Your task to perform on an android device: Open wifi settings Image 0: 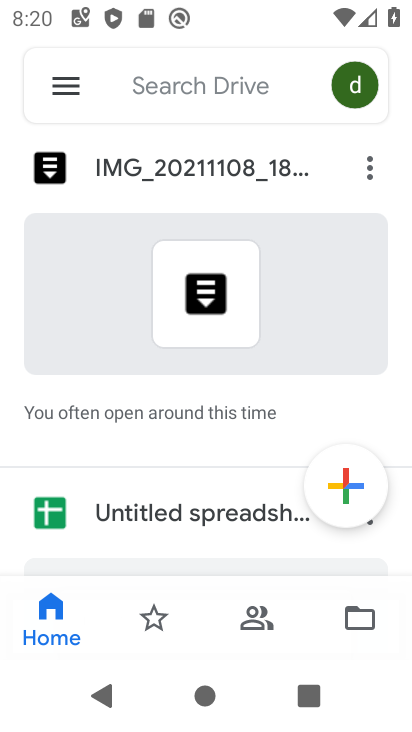
Step 0: drag from (216, 462) to (343, 132)
Your task to perform on an android device: Open wifi settings Image 1: 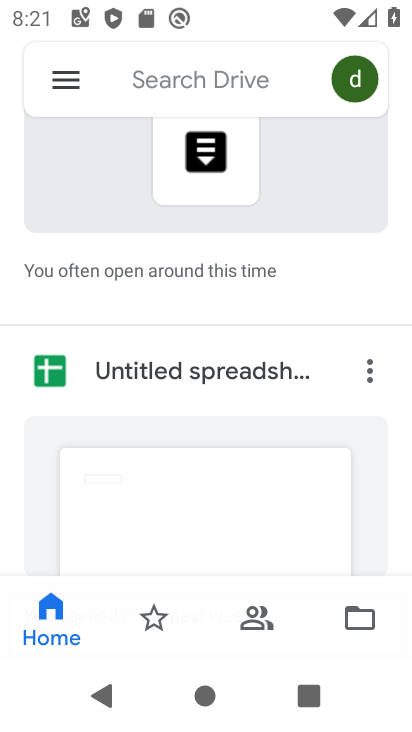
Step 1: drag from (201, 481) to (238, 33)
Your task to perform on an android device: Open wifi settings Image 2: 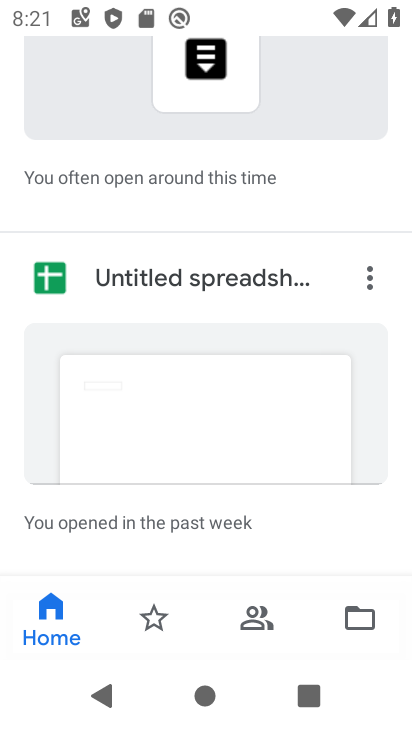
Step 2: press home button
Your task to perform on an android device: Open wifi settings Image 3: 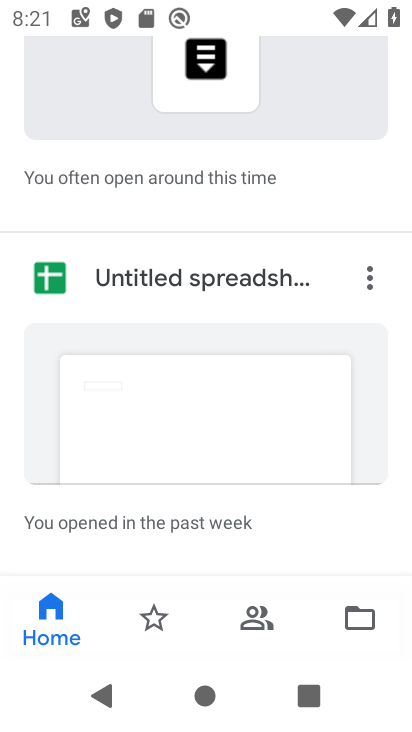
Step 3: press home button
Your task to perform on an android device: Open wifi settings Image 4: 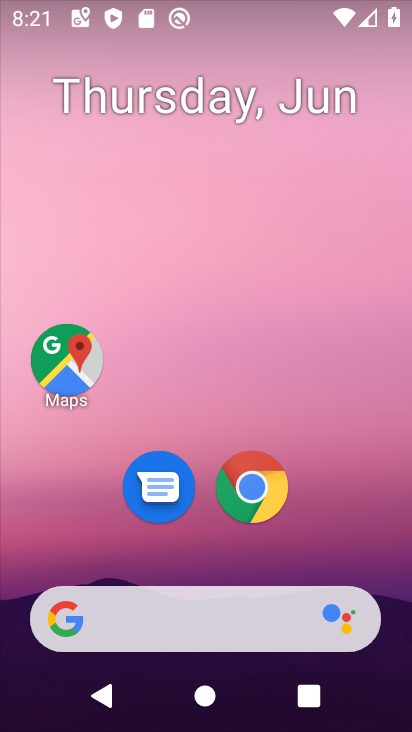
Step 4: drag from (208, 535) to (217, 260)
Your task to perform on an android device: Open wifi settings Image 5: 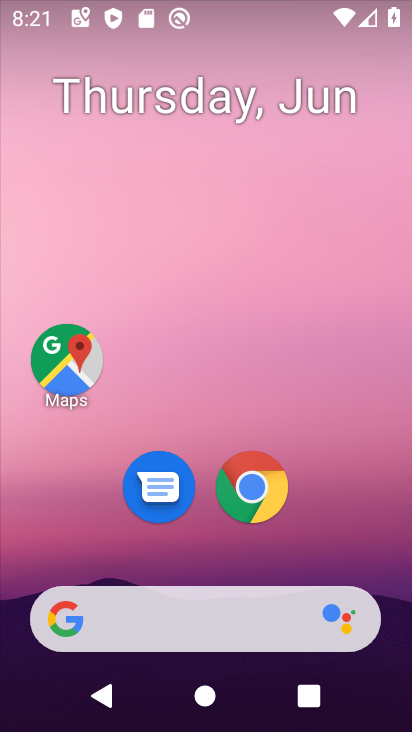
Step 5: drag from (185, 562) to (204, 69)
Your task to perform on an android device: Open wifi settings Image 6: 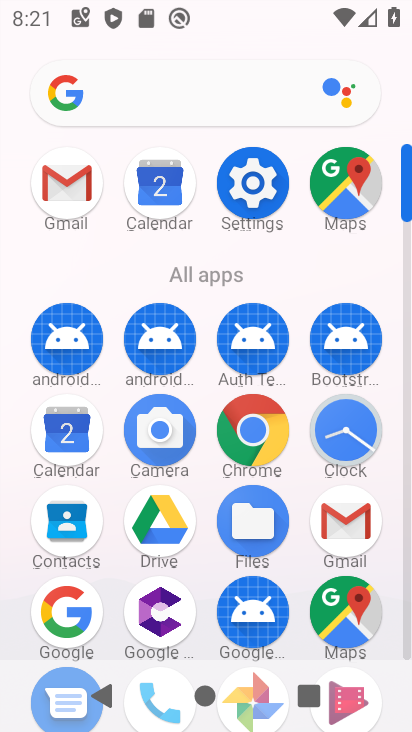
Step 6: click (251, 172)
Your task to perform on an android device: Open wifi settings Image 7: 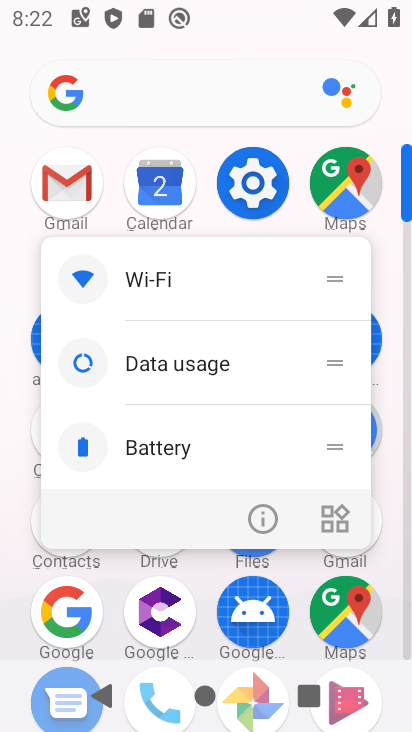
Step 7: click (280, 515)
Your task to perform on an android device: Open wifi settings Image 8: 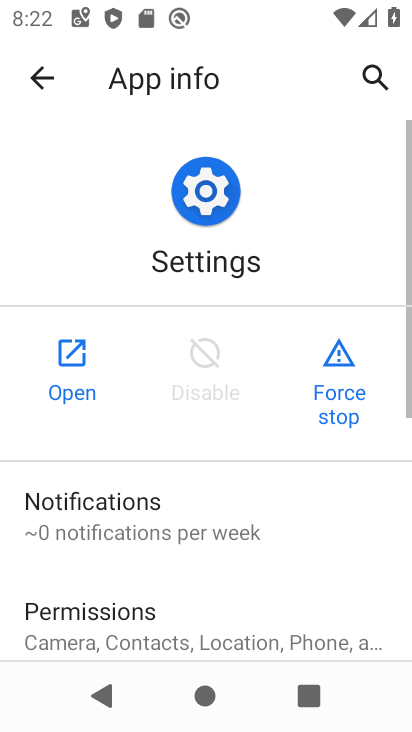
Step 8: click (56, 389)
Your task to perform on an android device: Open wifi settings Image 9: 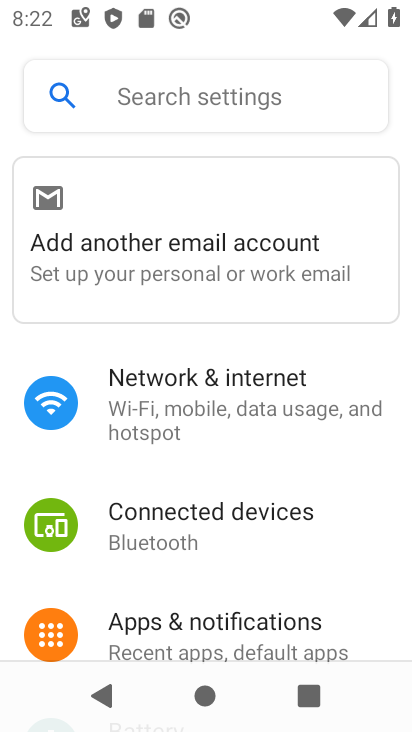
Step 9: click (171, 384)
Your task to perform on an android device: Open wifi settings Image 10: 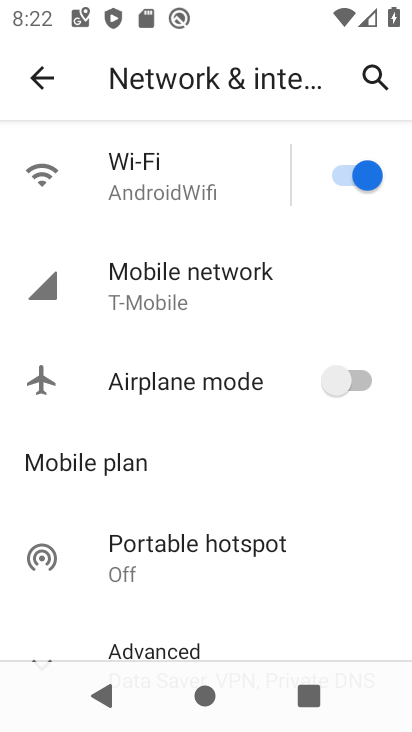
Step 10: click (160, 188)
Your task to perform on an android device: Open wifi settings Image 11: 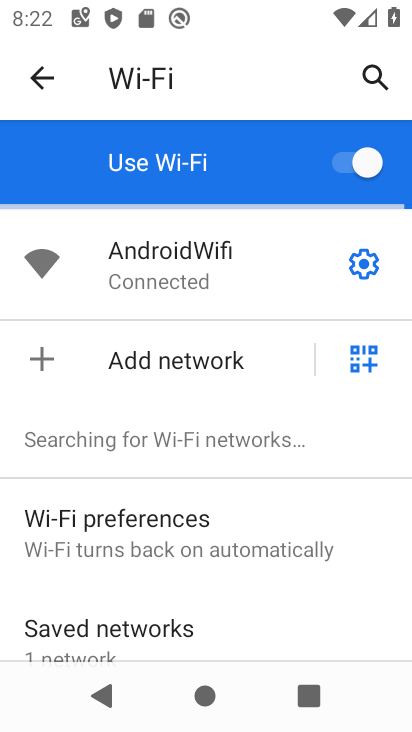
Step 11: drag from (256, 582) to (267, 210)
Your task to perform on an android device: Open wifi settings Image 12: 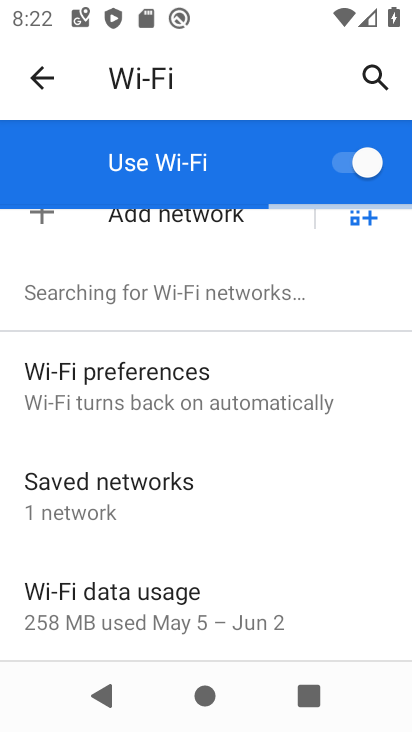
Step 12: drag from (263, 232) to (289, 683)
Your task to perform on an android device: Open wifi settings Image 13: 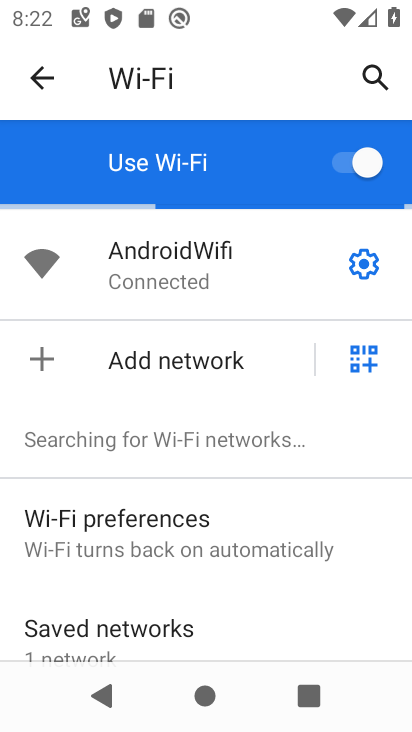
Step 13: click (358, 262)
Your task to perform on an android device: Open wifi settings Image 14: 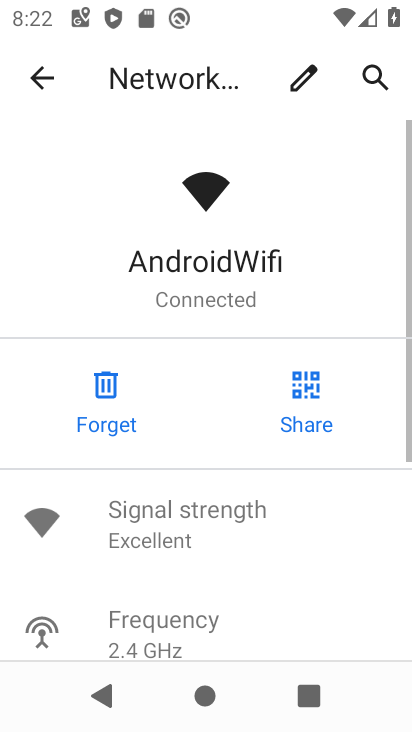
Step 14: task complete